Your task to perform on an android device: toggle pop-ups in chrome Image 0: 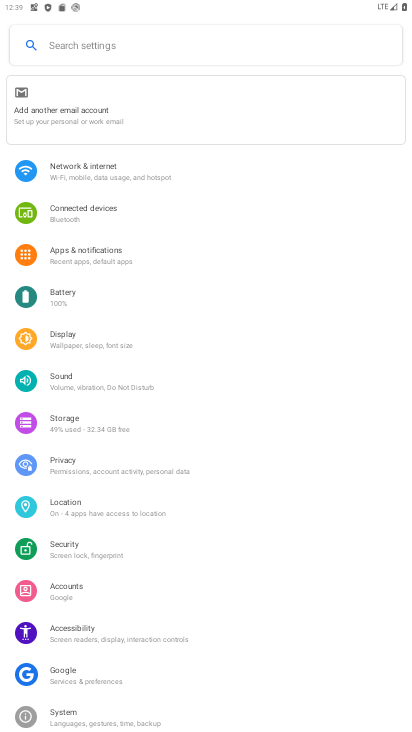
Step 0: drag from (163, 729) to (184, 210)
Your task to perform on an android device: toggle pop-ups in chrome Image 1: 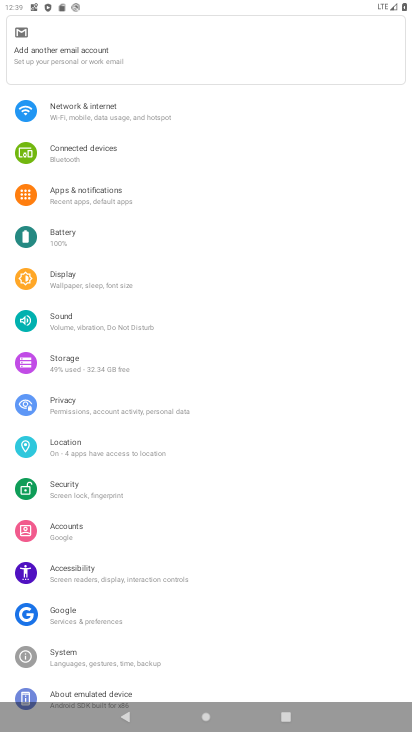
Step 1: click (203, 720)
Your task to perform on an android device: toggle pop-ups in chrome Image 2: 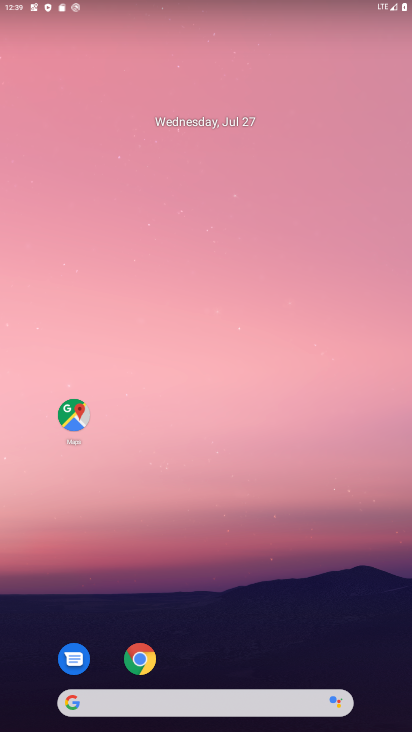
Step 2: click (133, 663)
Your task to perform on an android device: toggle pop-ups in chrome Image 3: 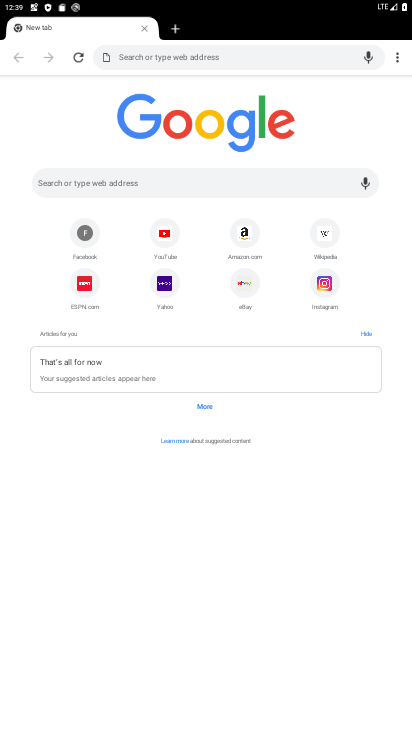
Step 3: click (395, 56)
Your task to perform on an android device: toggle pop-ups in chrome Image 4: 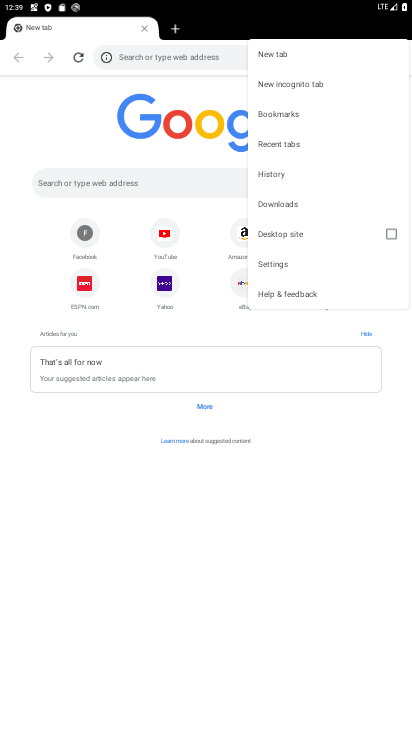
Step 4: click (294, 259)
Your task to perform on an android device: toggle pop-ups in chrome Image 5: 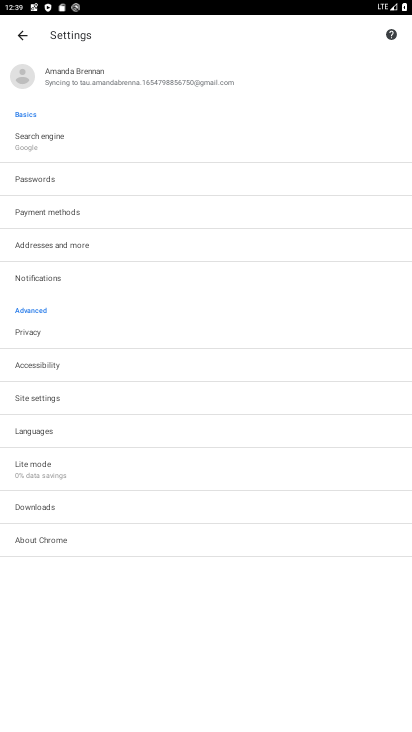
Step 5: click (33, 395)
Your task to perform on an android device: toggle pop-ups in chrome Image 6: 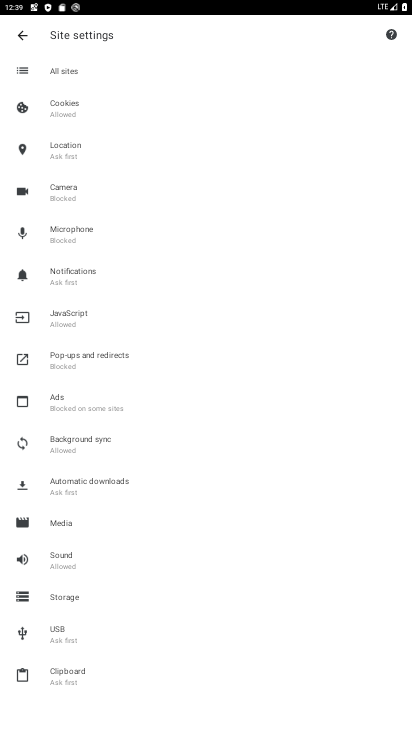
Step 6: click (78, 363)
Your task to perform on an android device: toggle pop-ups in chrome Image 7: 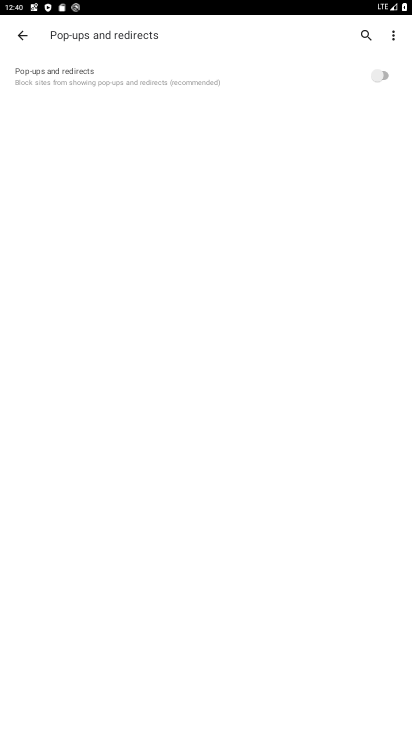
Step 7: click (376, 76)
Your task to perform on an android device: toggle pop-ups in chrome Image 8: 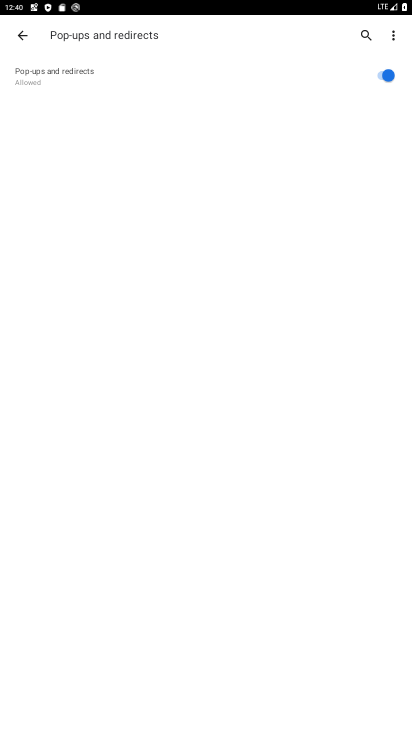
Step 8: task complete